Your task to perform on an android device: turn notification dots off Image 0: 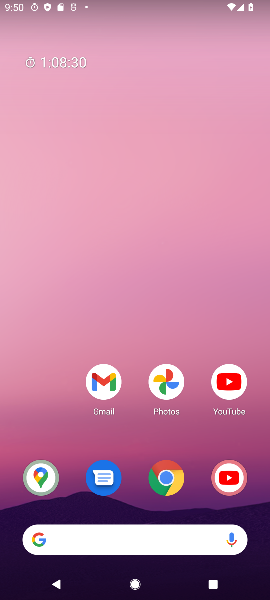
Step 0: press home button
Your task to perform on an android device: turn notification dots off Image 1: 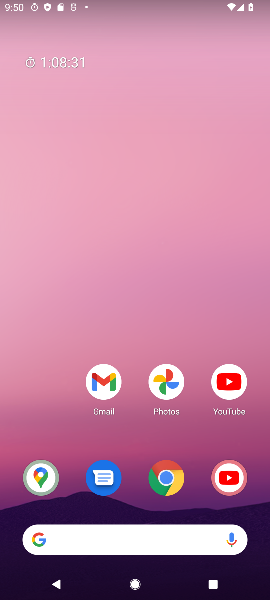
Step 1: press home button
Your task to perform on an android device: turn notification dots off Image 2: 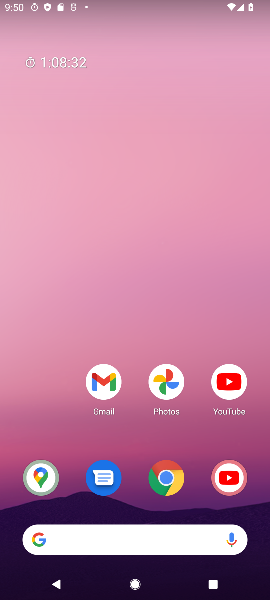
Step 2: drag from (89, 434) to (64, 105)
Your task to perform on an android device: turn notification dots off Image 3: 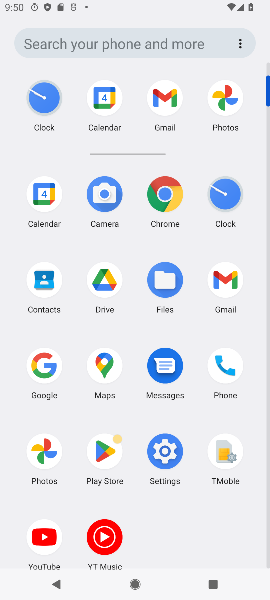
Step 3: click (161, 459)
Your task to perform on an android device: turn notification dots off Image 4: 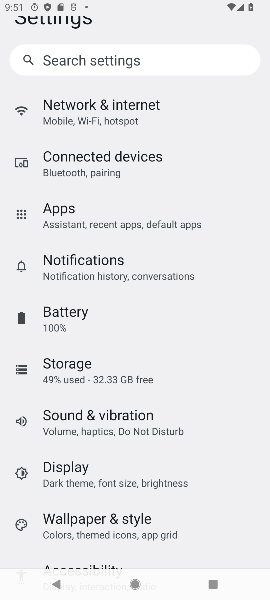
Step 4: click (110, 257)
Your task to perform on an android device: turn notification dots off Image 5: 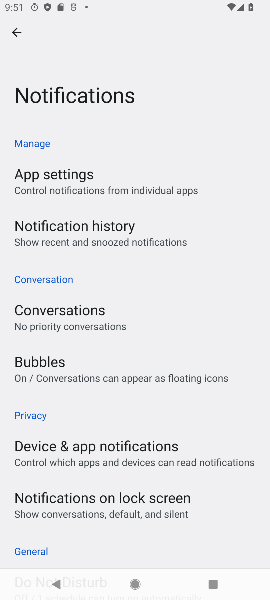
Step 5: task complete